Your task to perform on an android device: add a label to a message in the gmail app Image 0: 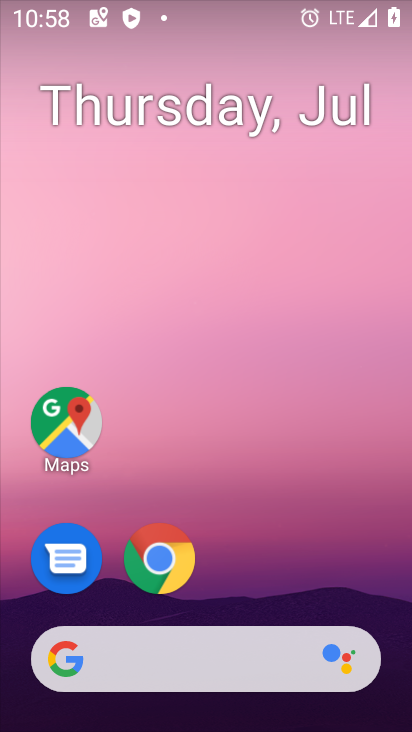
Step 0: drag from (359, 584) to (350, 53)
Your task to perform on an android device: add a label to a message in the gmail app Image 1: 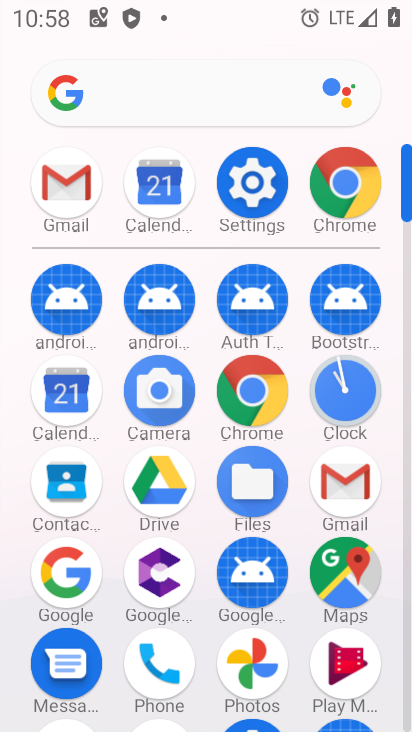
Step 1: click (340, 487)
Your task to perform on an android device: add a label to a message in the gmail app Image 2: 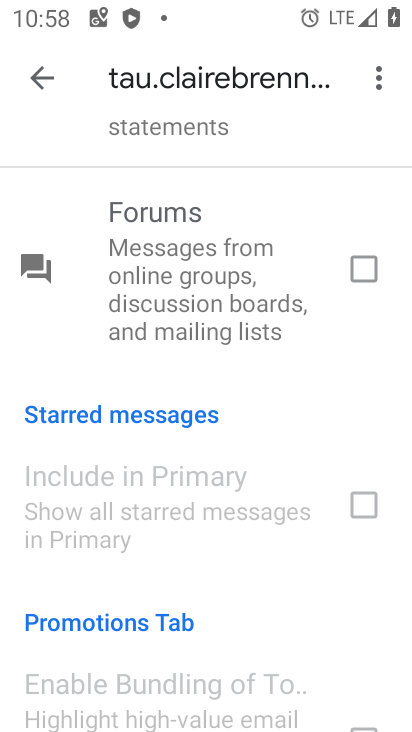
Step 2: task complete